Your task to perform on an android device: Clear all items from cart on walmart. Search for "razer huntsman" on walmart, select the first entry, and add it to the cart. Image 0: 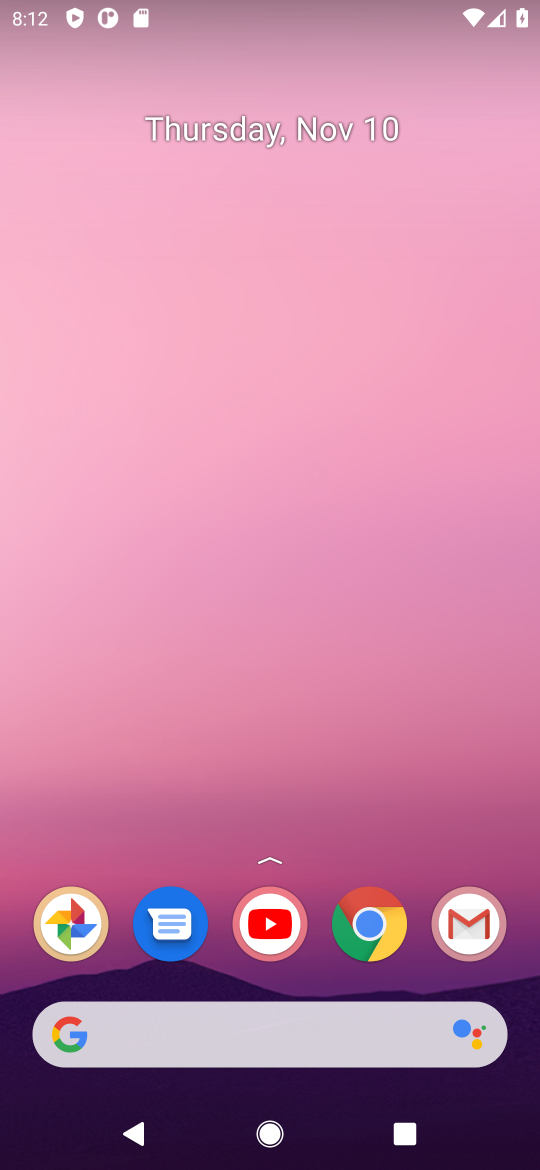
Step 0: click (365, 930)
Your task to perform on an android device: Clear all items from cart on walmart. Search for "razer huntsman" on walmart, select the first entry, and add it to the cart. Image 1: 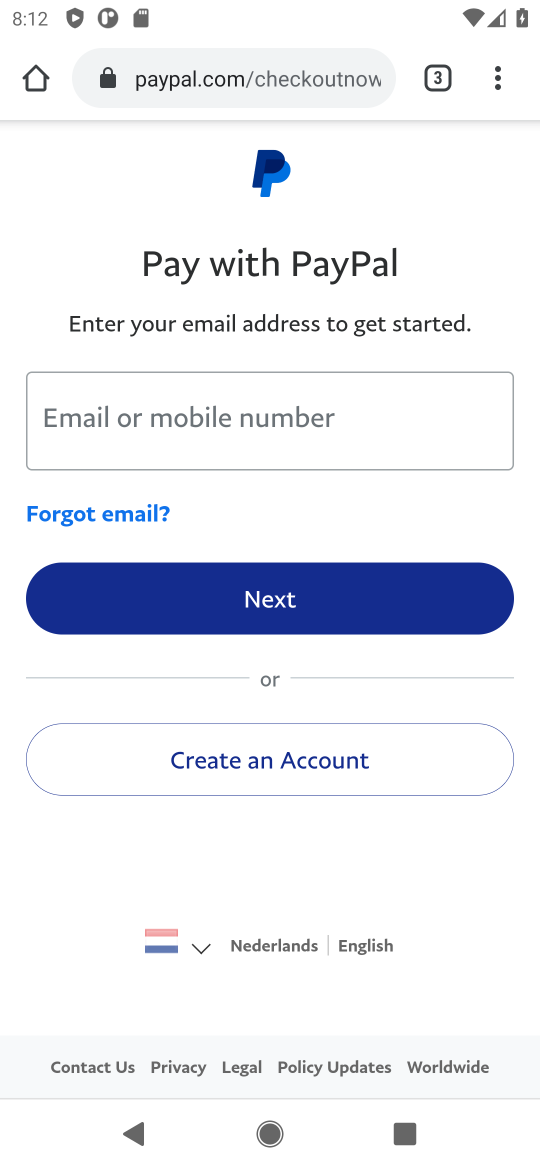
Step 1: click (157, 76)
Your task to perform on an android device: Clear all items from cart on walmart. Search for "razer huntsman" on walmart, select the first entry, and add it to the cart. Image 2: 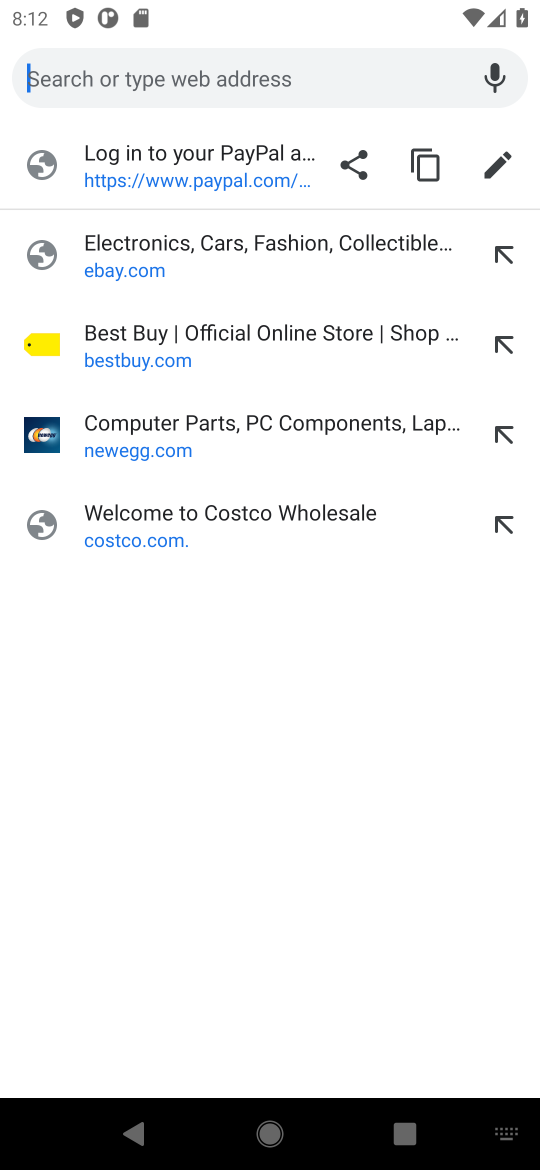
Step 2: type "walmart.com"
Your task to perform on an android device: Clear all items from cart on walmart. Search for "razer huntsman" on walmart, select the first entry, and add it to the cart. Image 3: 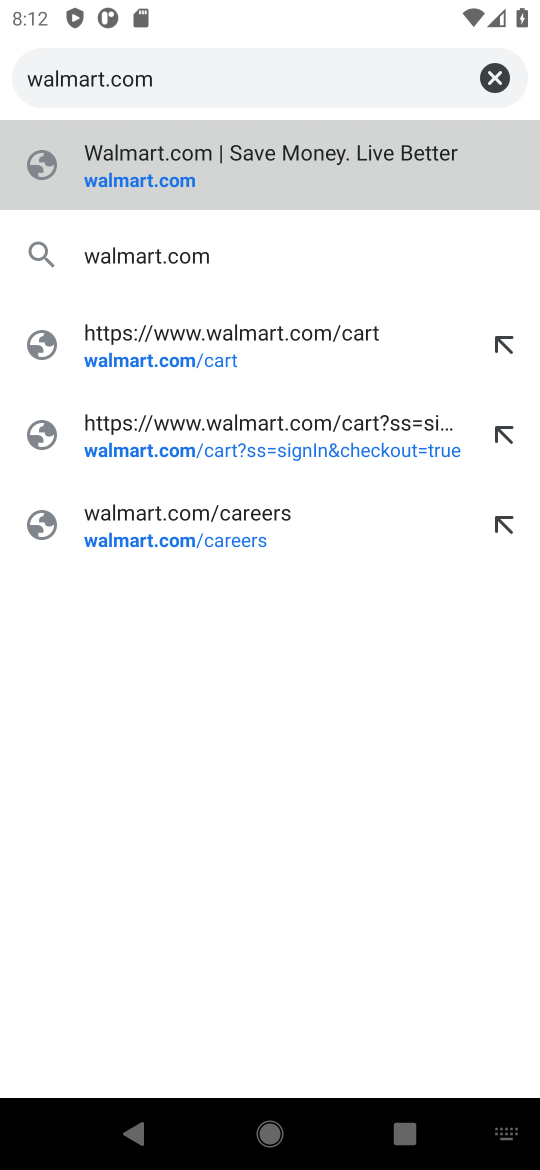
Step 3: click (144, 176)
Your task to perform on an android device: Clear all items from cart on walmart. Search for "razer huntsman" on walmart, select the first entry, and add it to the cart. Image 4: 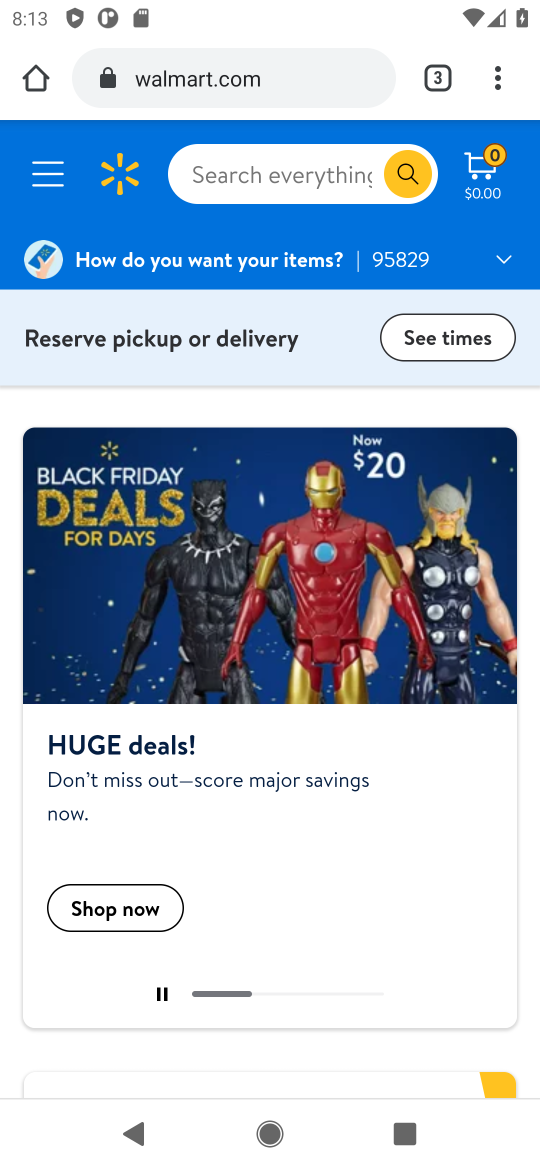
Step 4: click (489, 183)
Your task to perform on an android device: Clear all items from cart on walmart. Search for "razer huntsman" on walmart, select the first entry, and add it to the cart. Image 5: 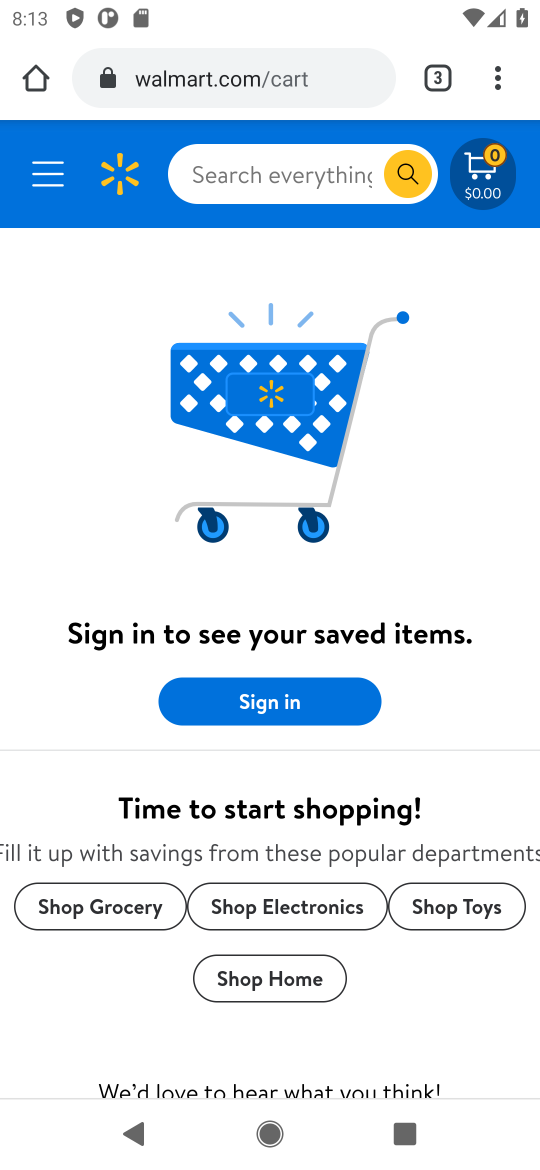
Step 5: click (303, 168)
Your task to perform on an android device: Clear all items from cart on walmart. Search for "razer huntsman" on walmart, select the first entry, and add it to the cart. Image 6: 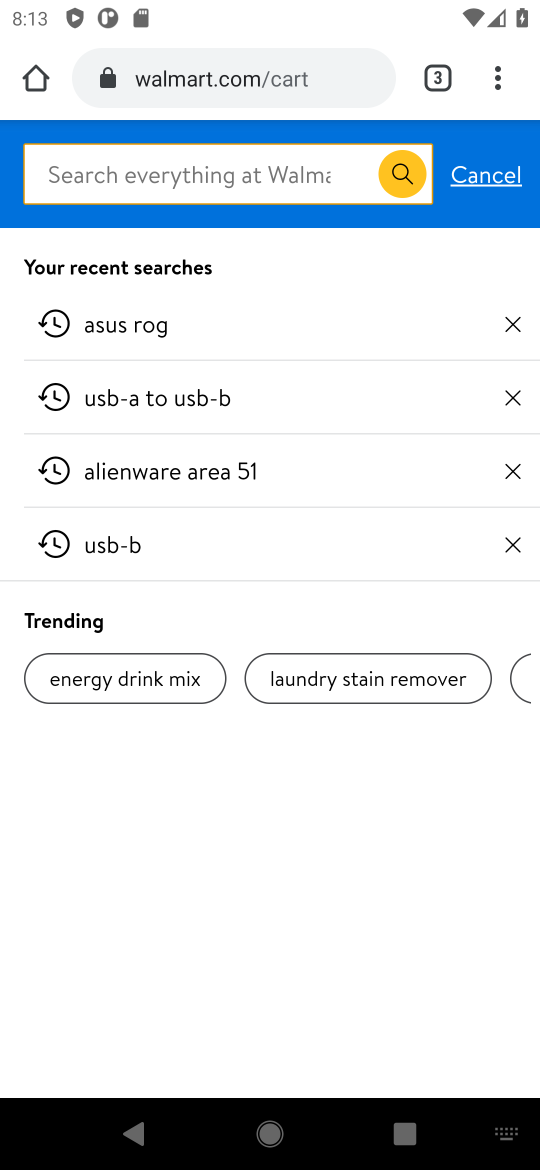
Step 6: type "razer huntsman"
Your task to perform on an android device: Clear all items from cart on walmart. Search for "razer huntsman" on walmart, select the first entry, and add it to the cart. Image 7: 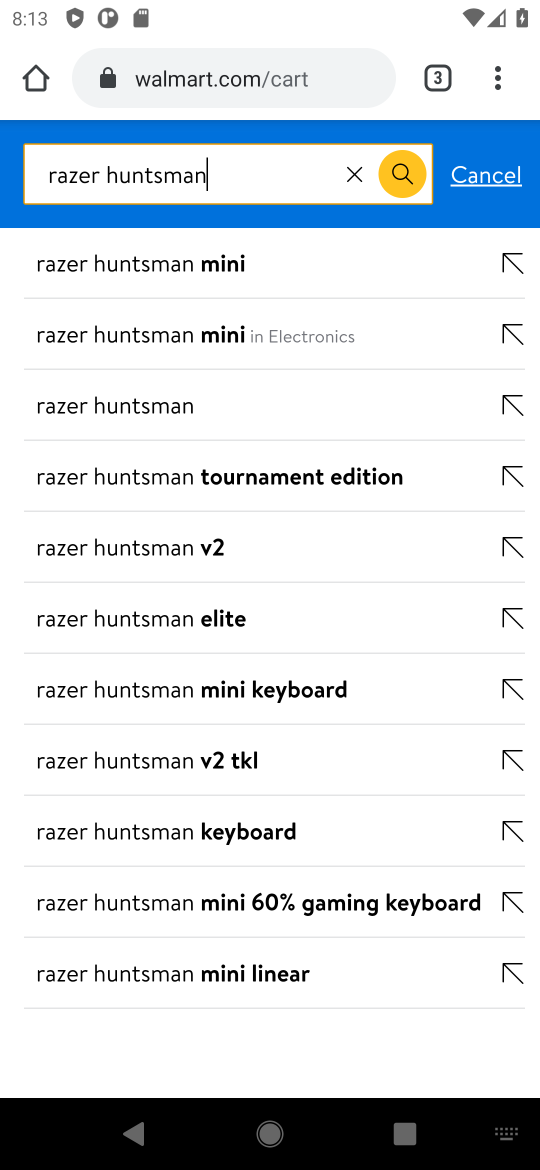
Step 7: click (165, 413)
Your task to perform on an android device: Clear all items from cart on walmart. Search for "razer huntsman" on walmart, select the first entry, and add it to the cart. Image 8: 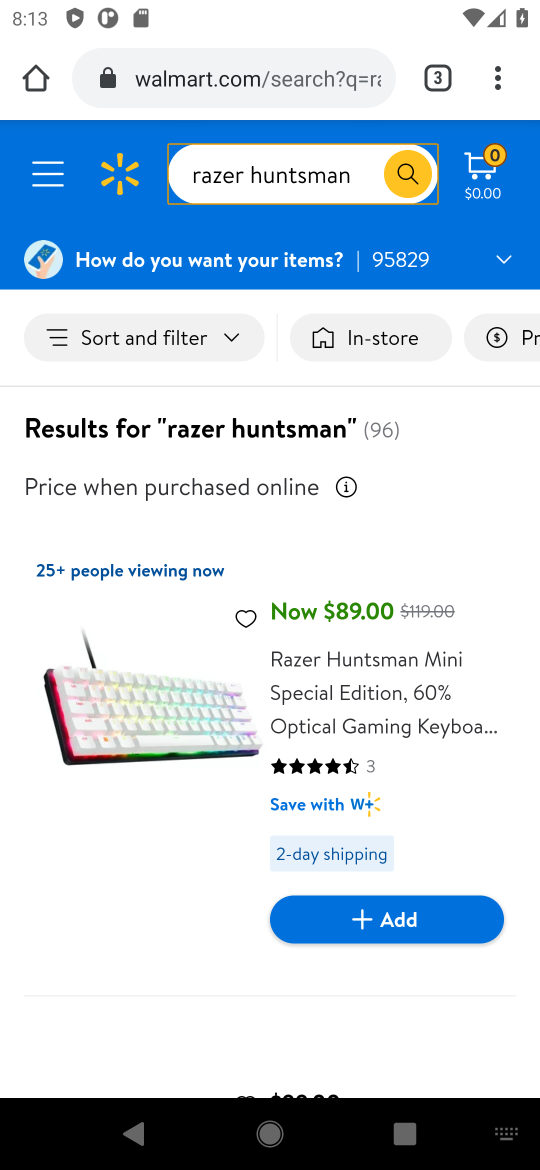
Step 8: click (409, 928)
Your task to perform on an android device: Clear all items from cart on walmart. Search for "razer huntsman" on walmart, select the first entry, and add it to the cart. Image 9: 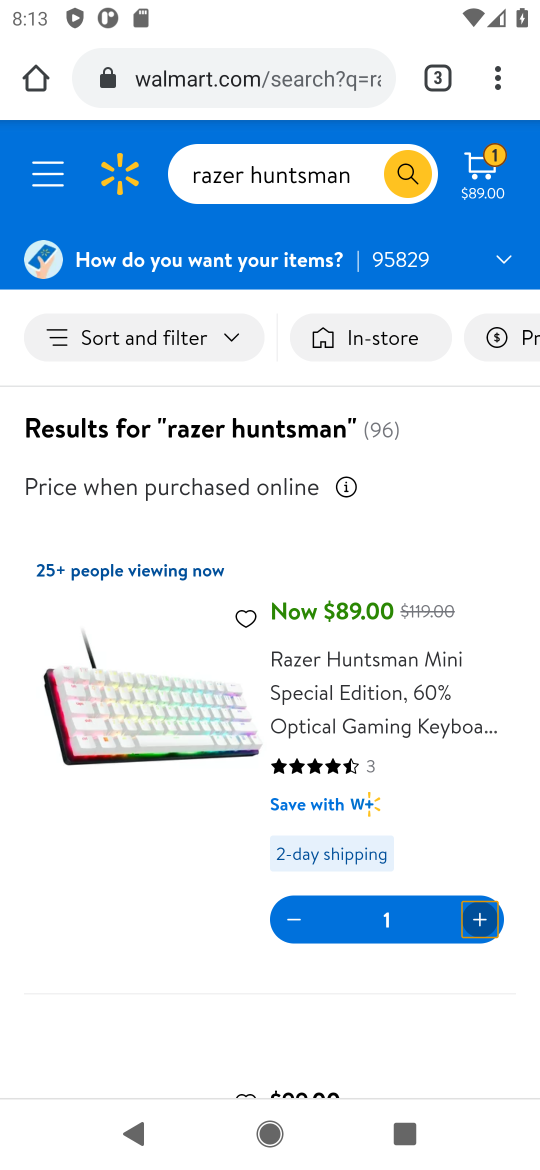
Step 9: task complete